Your task to perform on an android device: check android version Image 0: 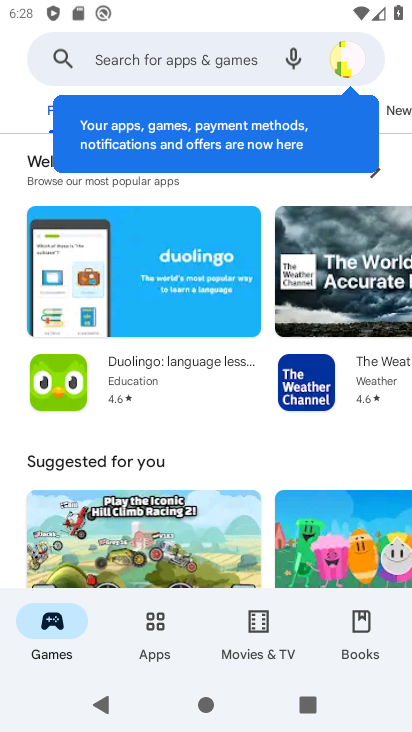
Step 0: press home button
Your task to perform on an android device: check android version Image 1: 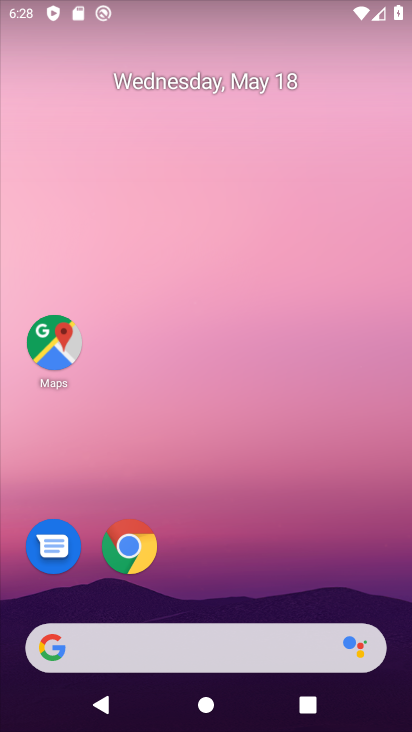
Step 1: drag from (342, 577) to (293, 162)
Your task to perform on an android device: check android version Image 2: 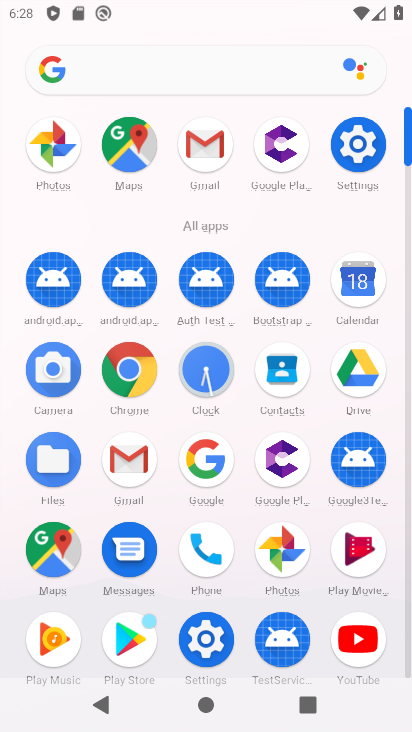
Step 2: click (360, 152)
Your task to perform on an android device: check android version Image 3: 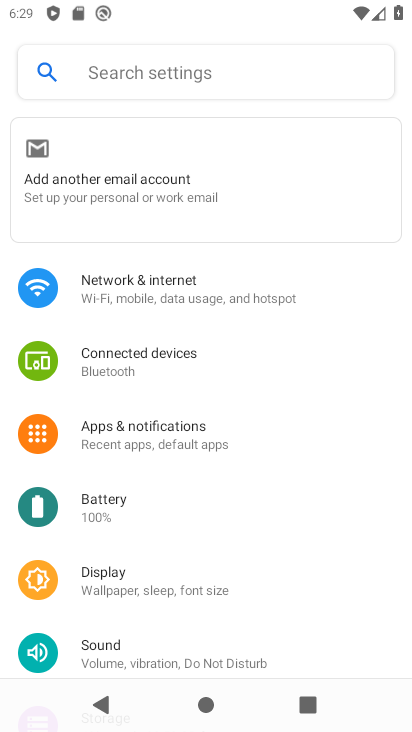
Step 3: drag from (140, 582) to (264, 171)
Your task to perform on an android device: check android version Image 4: 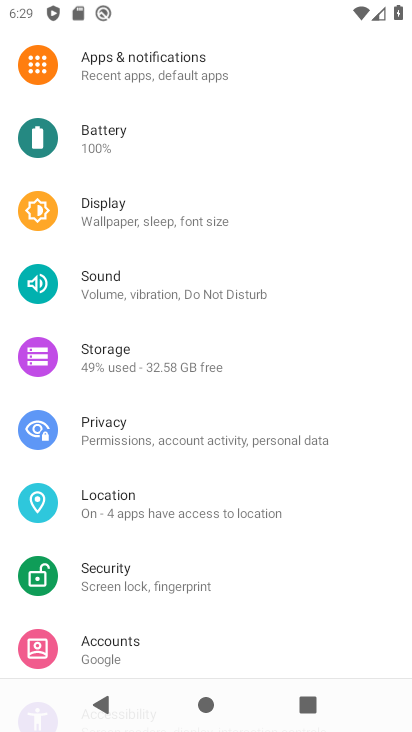
Step 4: drag from (130, 634) to (184, 25)
Your task to perform on an android device: check android version Image 5: 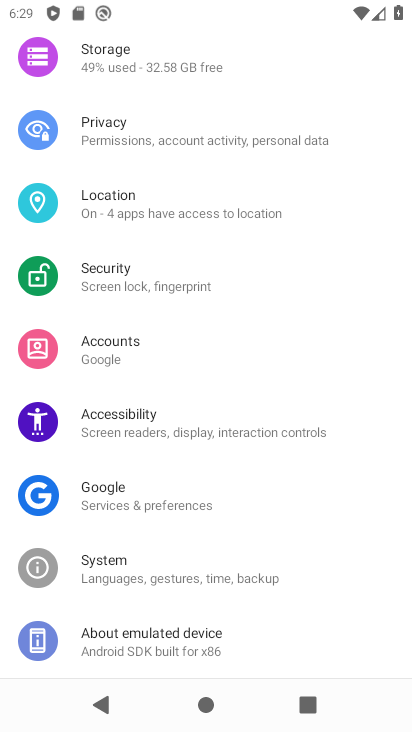
Step 5: click (216, 627)
Your task to perform on an android device: check android version Image 6: 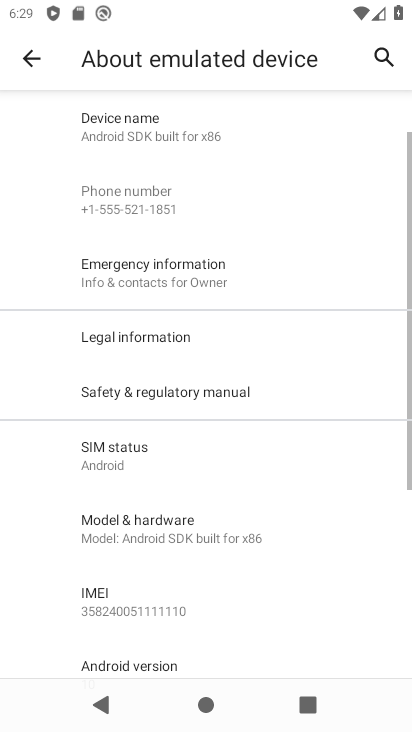
Step 6: click (153, 660)
Your task to perform on an android device: check android version Image 7: 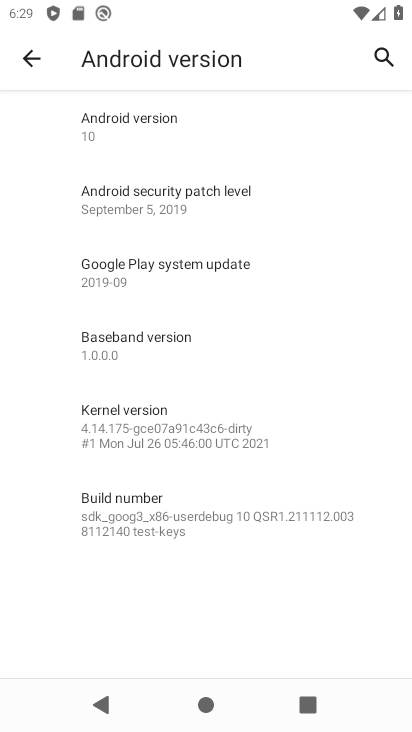
Step 7: task complete